Your task to perform on an android device: uninstall "DuckDuckGo Privacy Browser" Image 0: 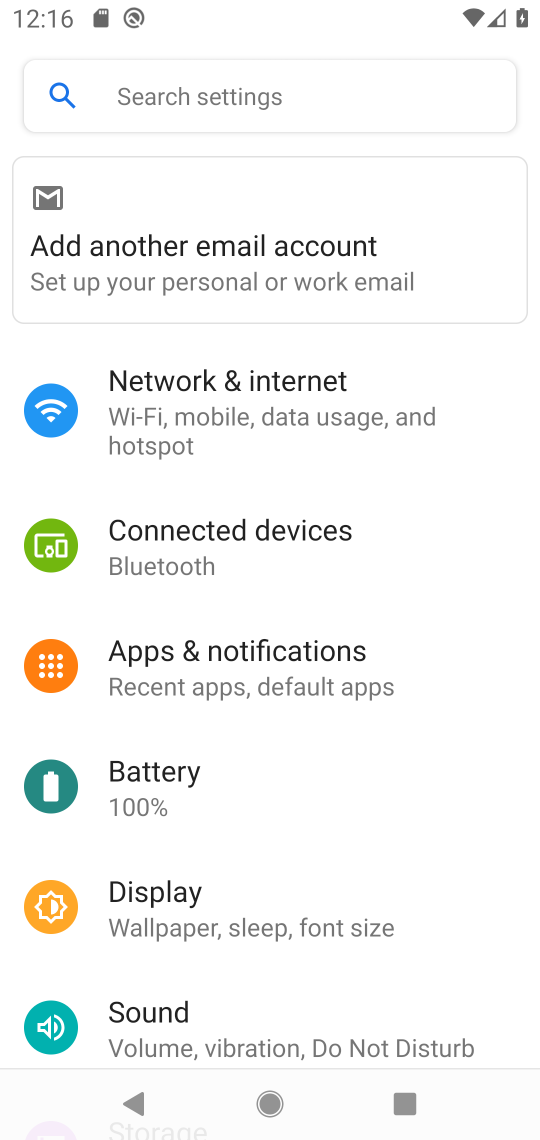
Step 0: press home button
Your task to perform on an android device: uninstall "DuckDuckGo Privacy Browser" Image 1: 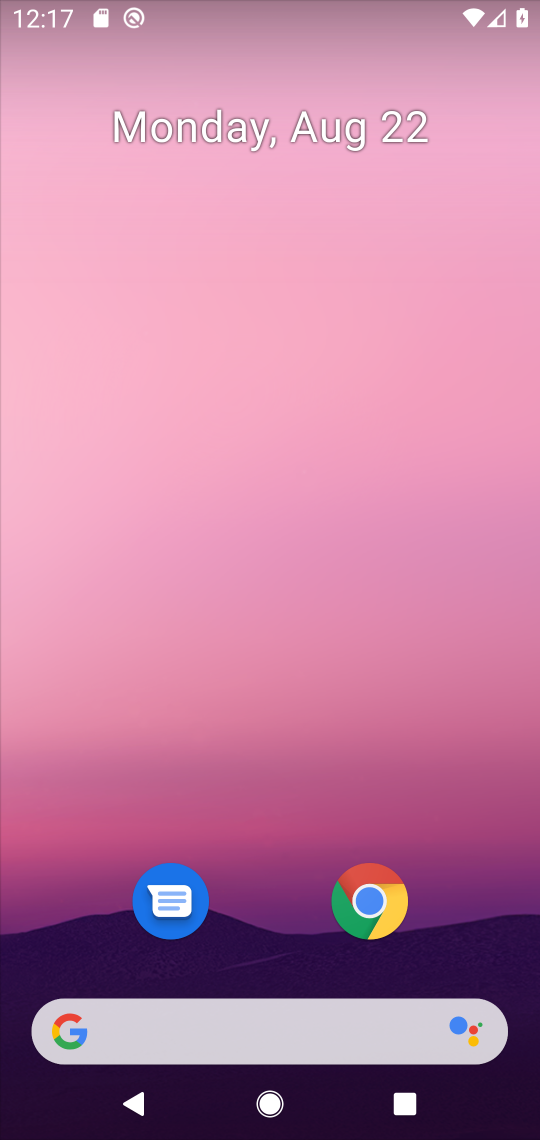
Step 1: drag from (246, 976) to (293, 73)
Your task to perform on an android device: uninstall "DuckDuckGo Privacy Browser" Image 2: 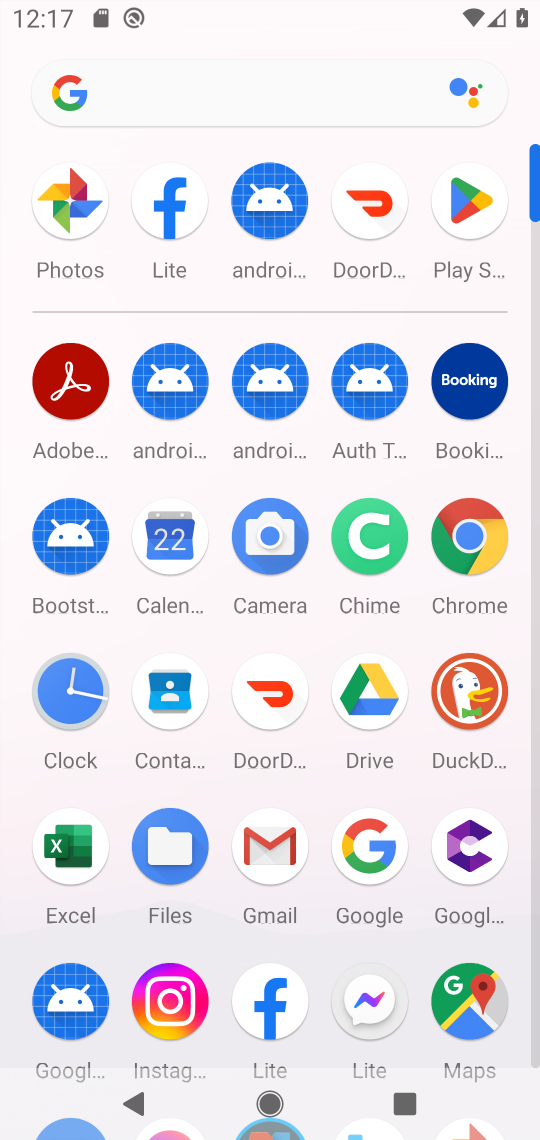
Step 2: click (414, 259)
Your task to perform on an android device: uninstall "DuckDuckGo Privacy Browser" Image 3: 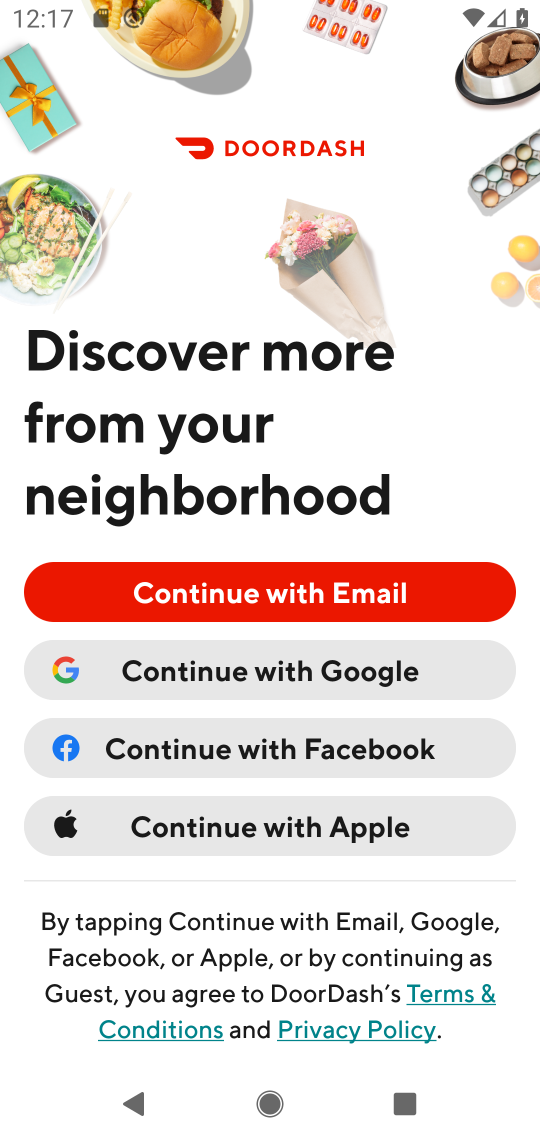
Step 3: press home button
Your task to perform on an android device: uninstall "DuckDuckGo Privacy Browser" Image 4: 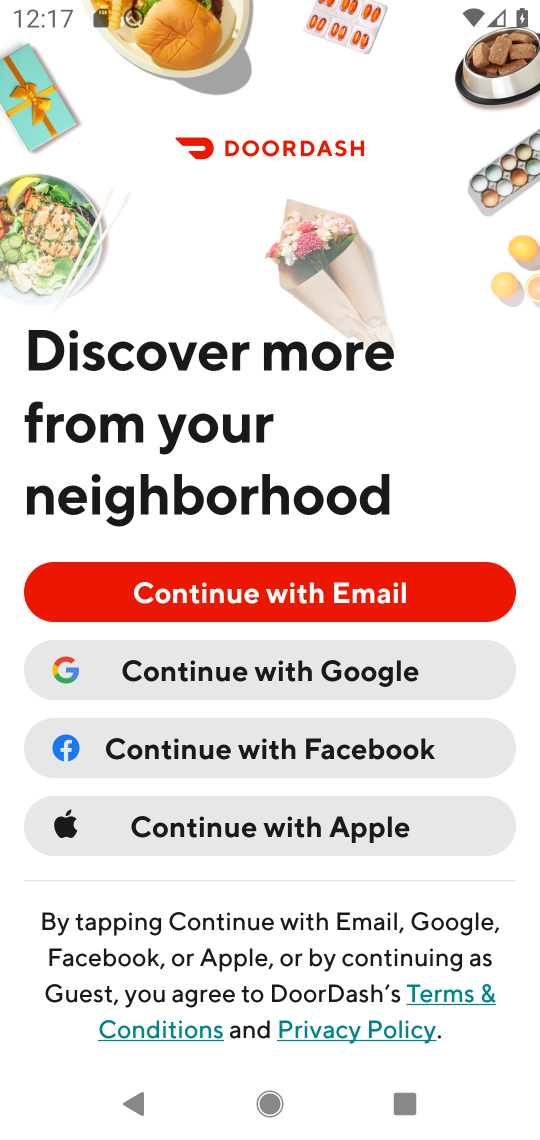
Step 4: press home button
Your task to perform on an android device: uninstall "DuckDuckGo Privacy Browser" Image 5: 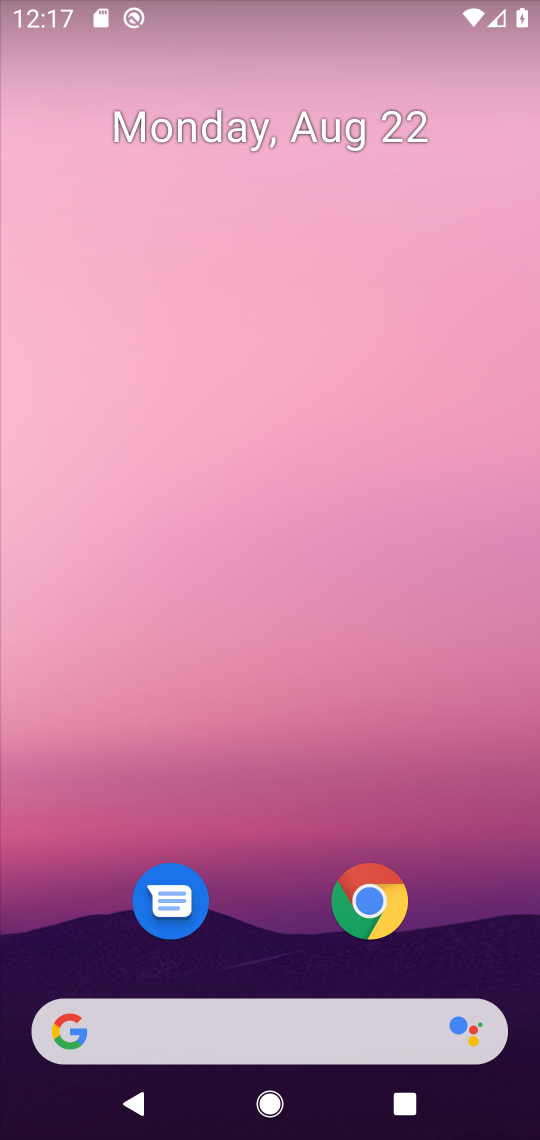
Step 5: drag from (265, 992) to (267, 8)
Your task to perform on an android device: uninstall "DuckDuckGo Privacy Browser" Image 6: 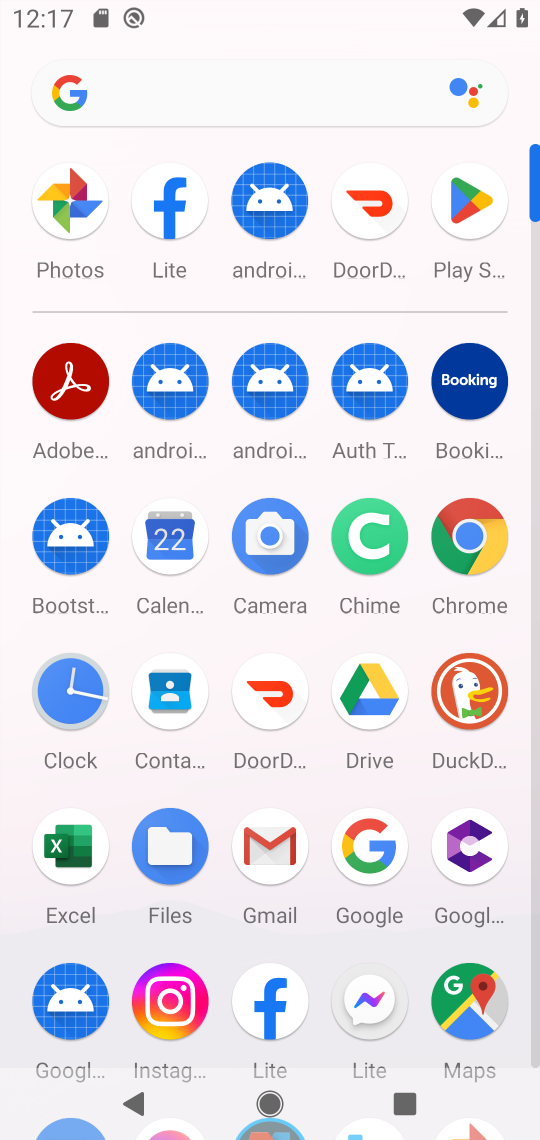
Step 6: click (440, 721)
Your task to perform on an android device: uninstall "DuckDuckGo Privacy Browser" Image 7: 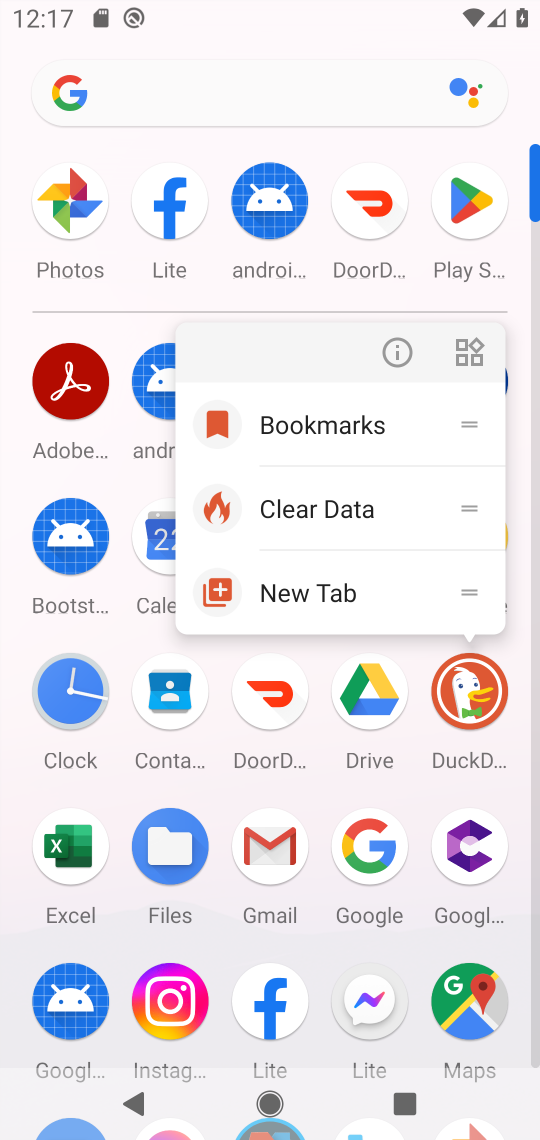
Step 7: click (405, 348)
Your task to perform on an android device: uninstall "DuckDuckGo Privacy Browser" Image 8: 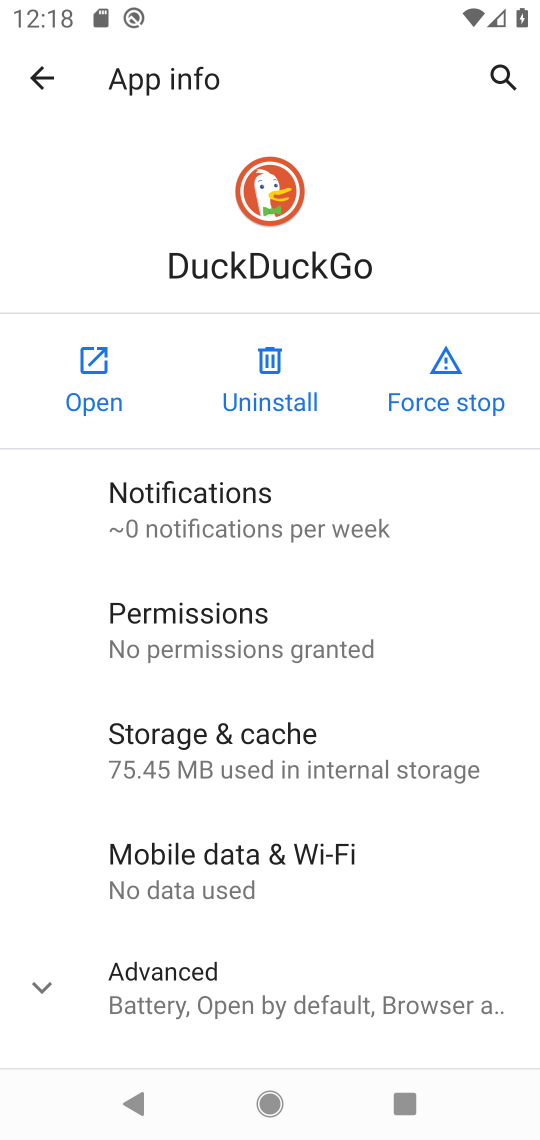
Step 8: click (292, 372)
Your task to perform on an android device: uninstall "DuckDuckGo Privacy Browser" Image 9: 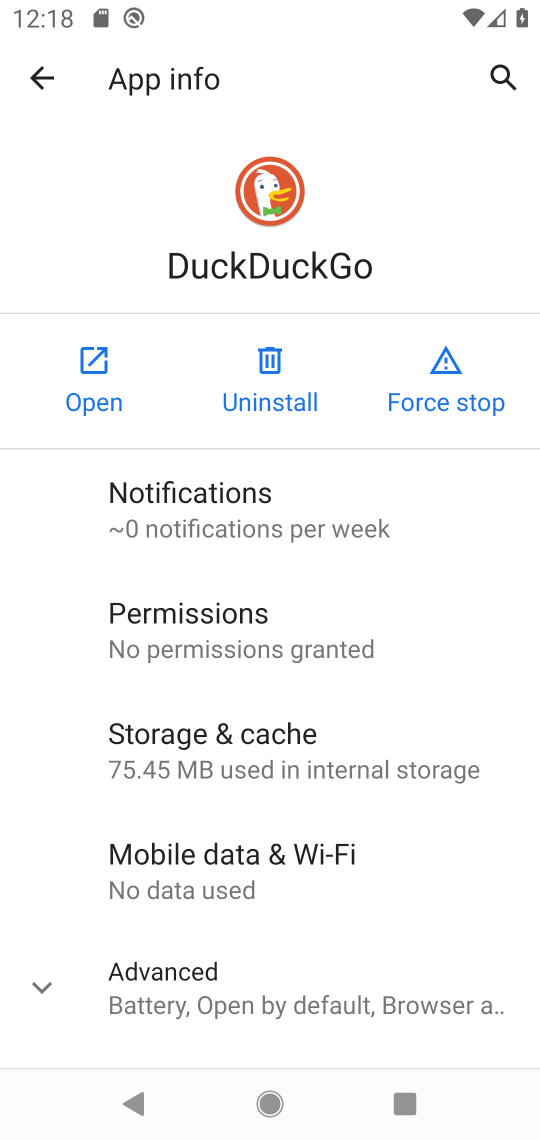
Step 9: task complete